Your task to perform on an android device: Go to Amazon Image 0: 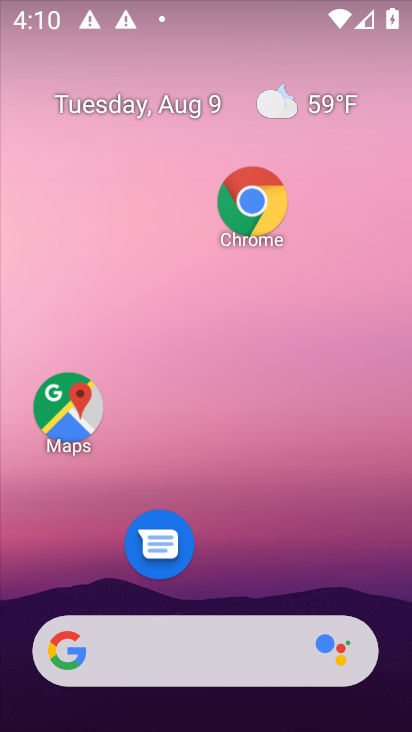
Step 0: drag from (234, 633) to (181, 179)
Your task to perform on an android device: Go to Amazon Image 1: 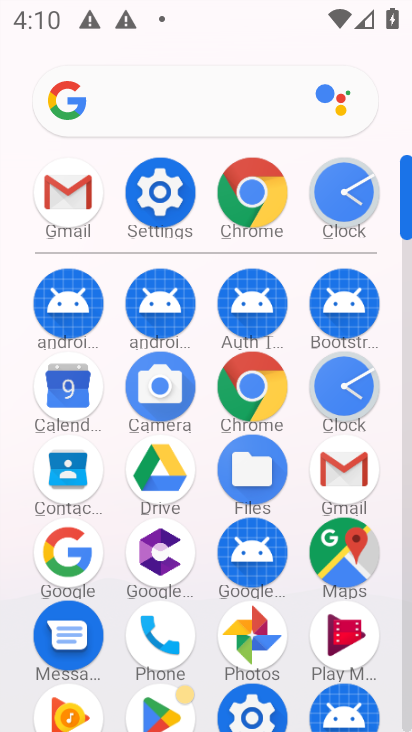
Step 1: click (61, 558)
Your task to perform on an android device: Go to Amazon Image 2: 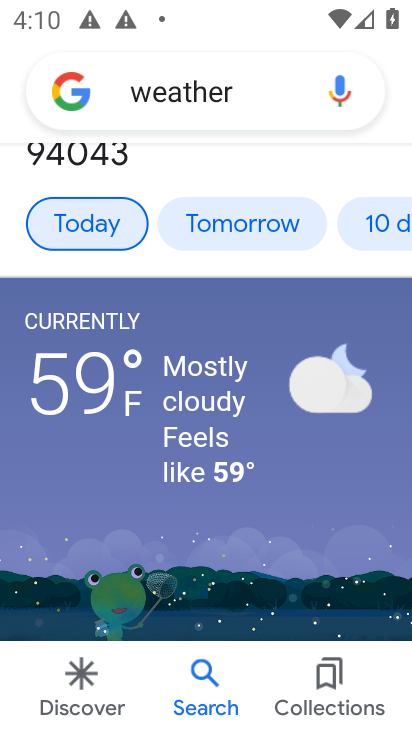
Step 2: click (252, 94)
Your task to perform on an android device: Go to Amazon Image 3: 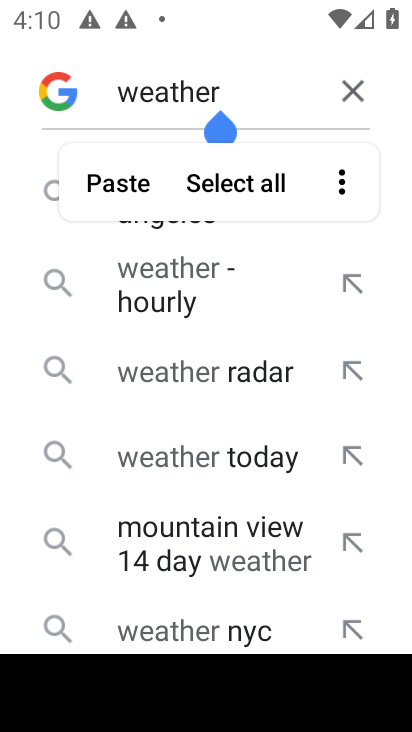
Step 3: click (352, 91)
Your task to perform on an android device: Go to Amazon Image 4: 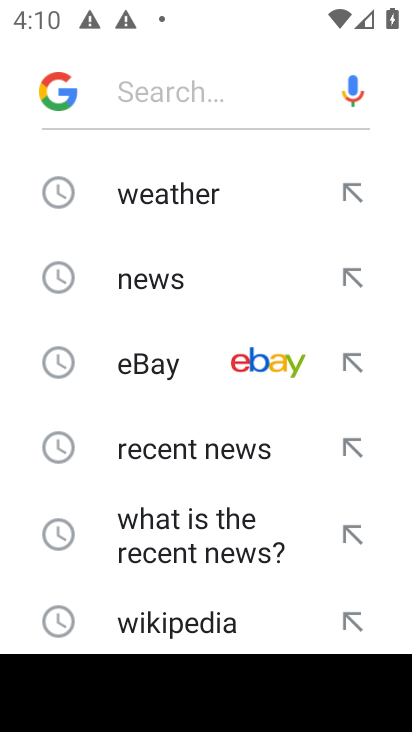
Step 4: drag from (157, 584) to (180, 268)
Your task to perform on an android device: Go to Amazon Image 5: 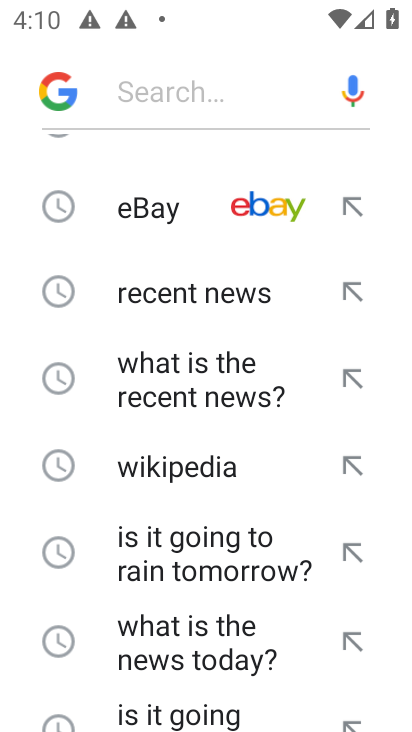
Step 5: drag from (201, 550) to (201, 261)
Your task to perform on an android device: Go to Amazon Image 6: 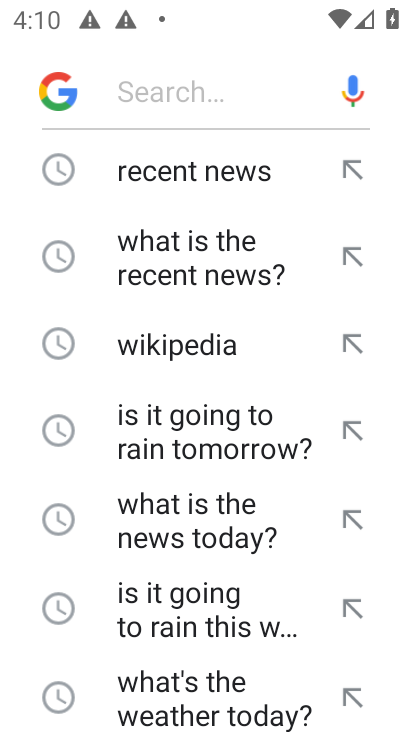
Step 6: drag from (166, 670) to (200, 327)
Your task to perform on an android device: Go to Amazon Image 7: 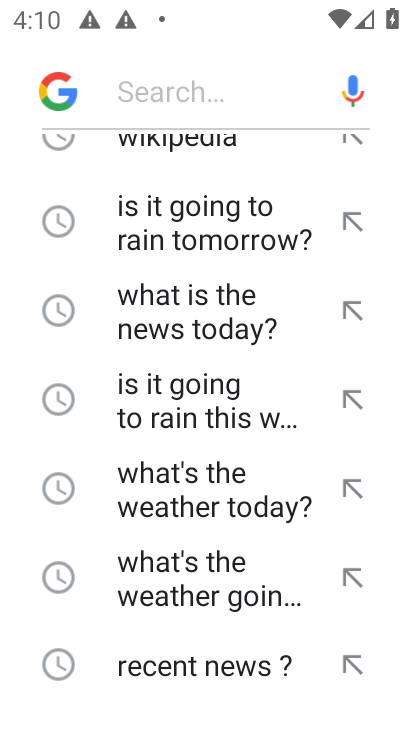
Step 7: drag from (202, 685) to (204, 341)
Your task to perform on an android device: Go to Amazon Image 8: 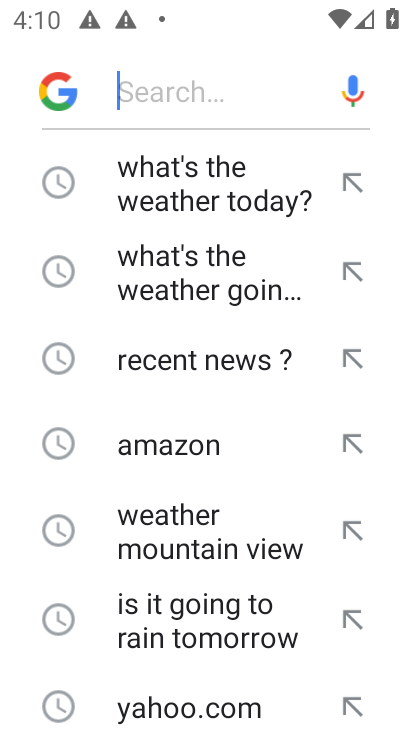
Step 8: click (174, 447)
Your task to perform on an android device: Go to Amazon Image 9: 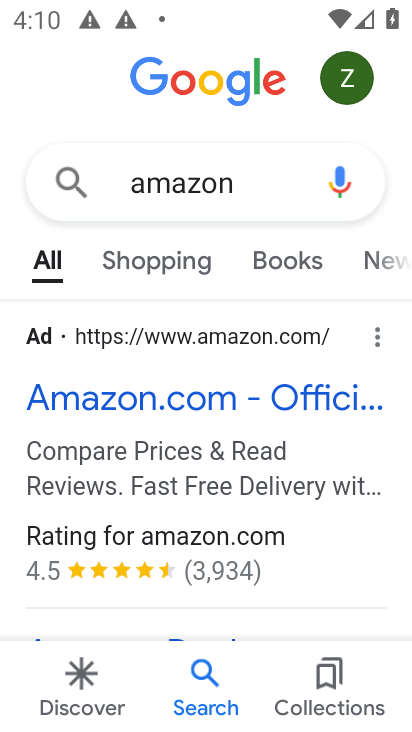
Step 9: click (171, 412)
Your task to perform on an android device: Go to Amazon Image 10: 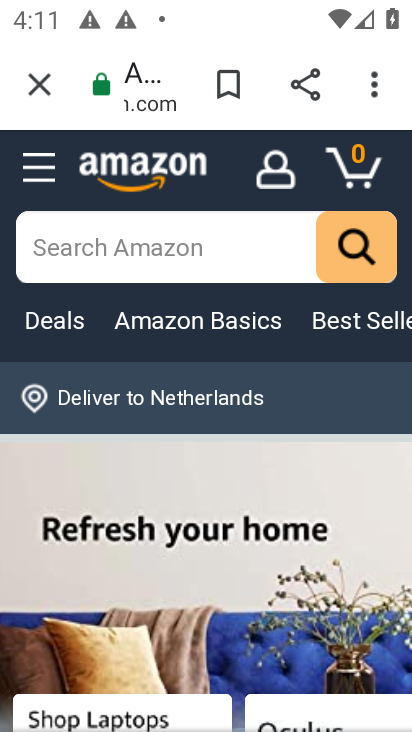
Step 10: task complete